Your task to perform on an android device: delete location history Image 0: 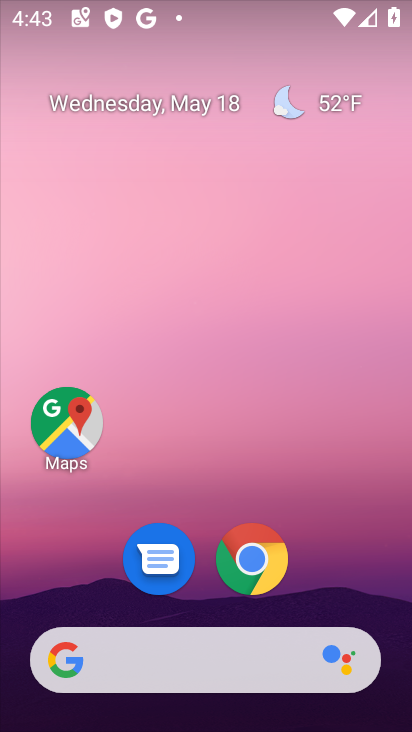
Step 0: click (58, 406)
Your task to perform on an android device: delete location history Image 1: 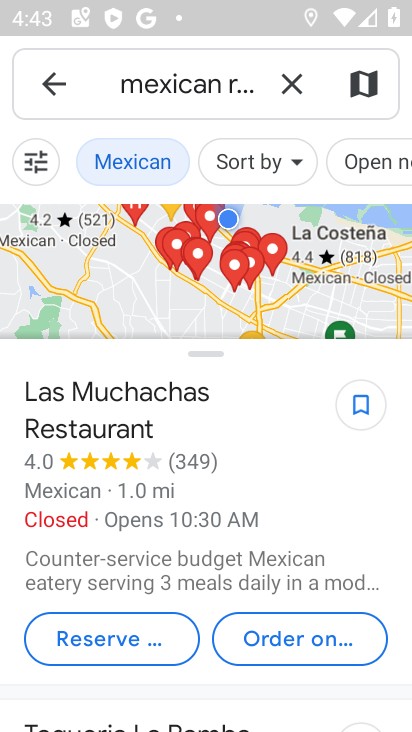
Step 1: click (39, 87)
Your task to perform on an android device: delete location history Image 2: 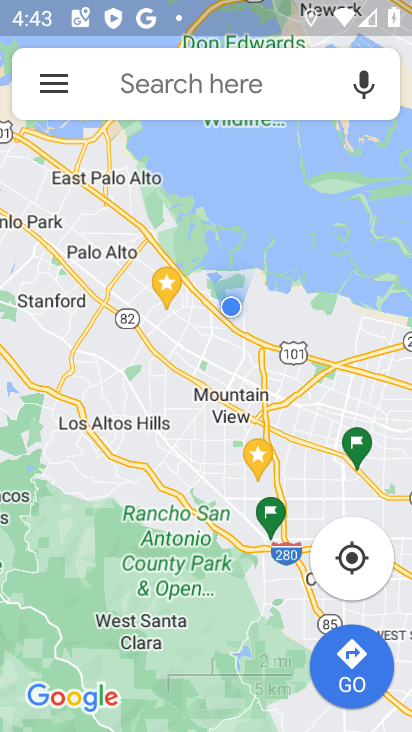
Step 2: click (62, 77)
Your task to perform on an android device: delete location history Image 3: 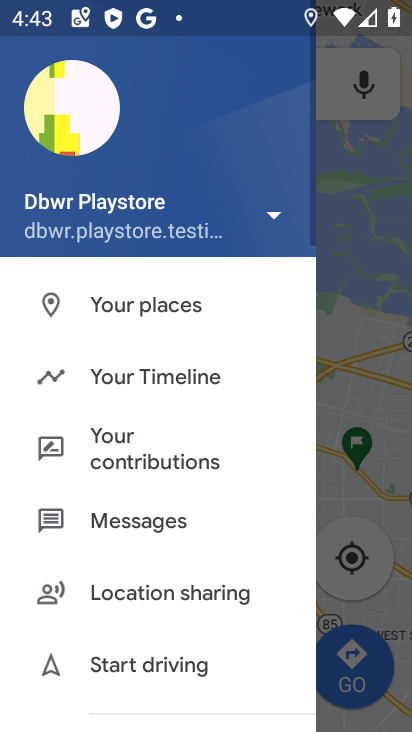
Step 3: click (136, 376)
Your task to perform on an android device: delete location history Image 4: 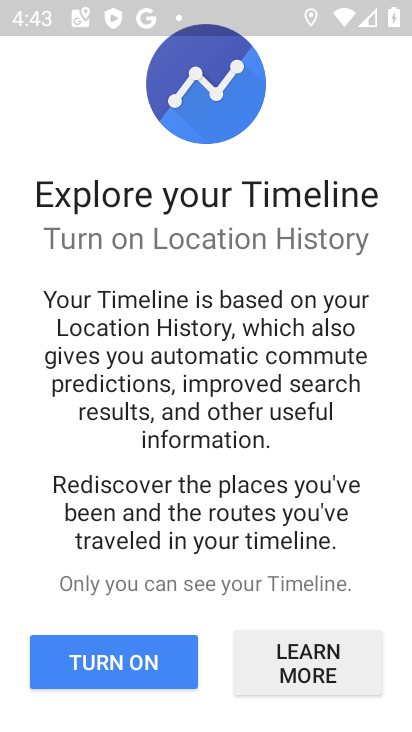
Step 4: click (127, 658)
Your task to perform on an android device: delete location history Image 5: 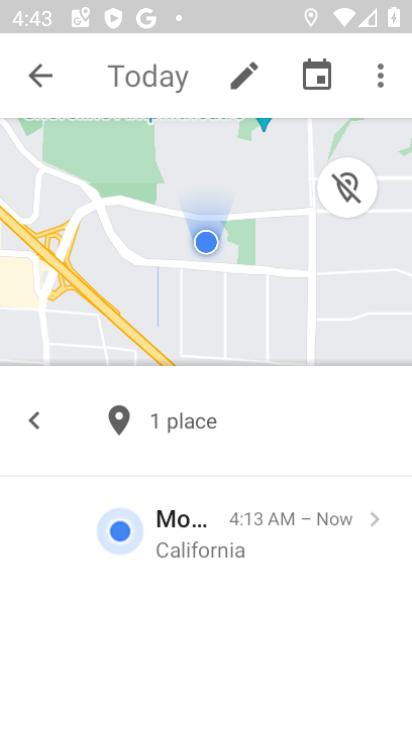
Step 5: click (380, 77)
Your task to perform on an android device: delete location history Image 6: 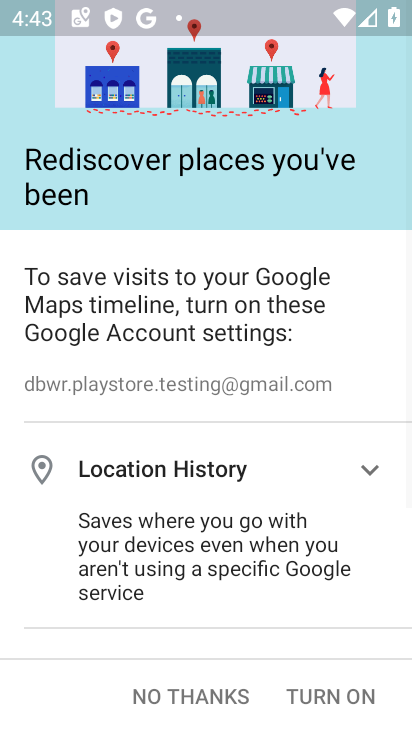
Step 6: click (190, 682)
Your task to perform on an android device: delete location history Image 7: 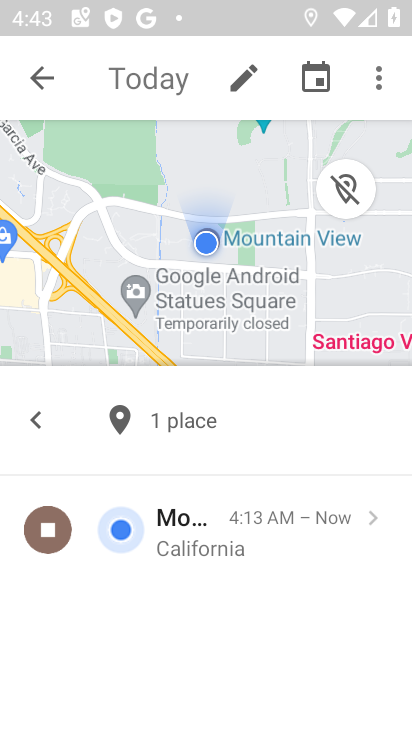
Step 7: click (378, 77)
Your task to perform on an android device: delete location history Image 8: 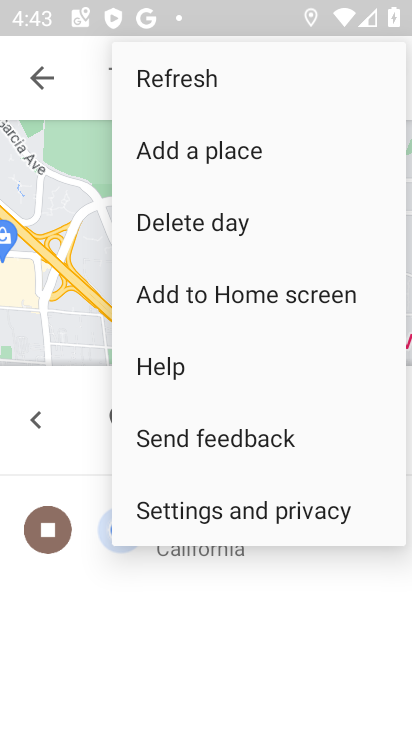
Step 8: click (145, 522)
Your task to perform on an android device: delete location history Image 9: 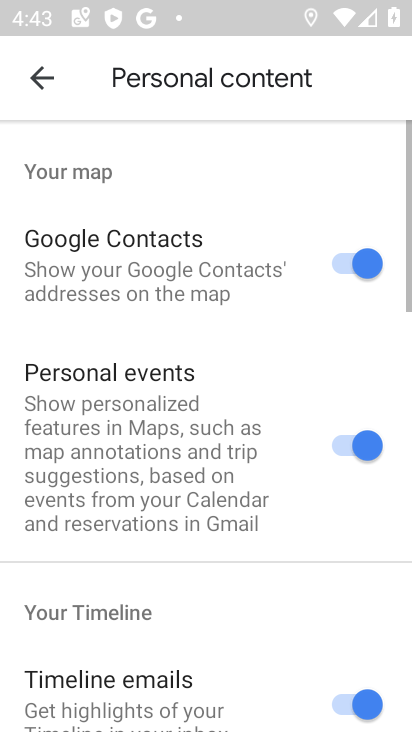
Step 9: drag from (153, 554) to (252, 42)
Your task to perform on an android device: delete location history Image 10: 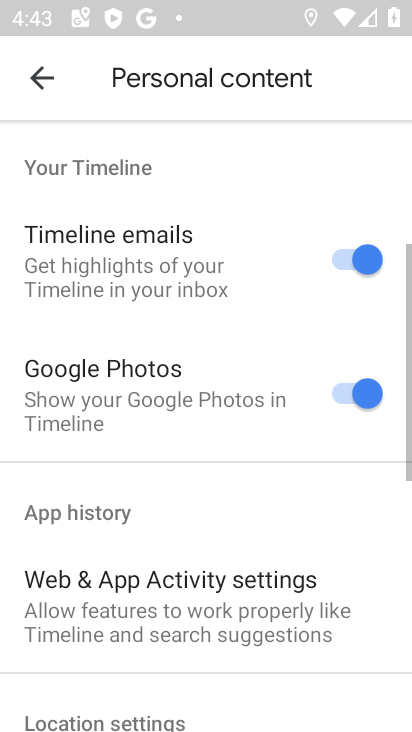
Step 10: drag from (161, 639) to (231, 161)
Your task to perform on an android device: delete location history Image 11: 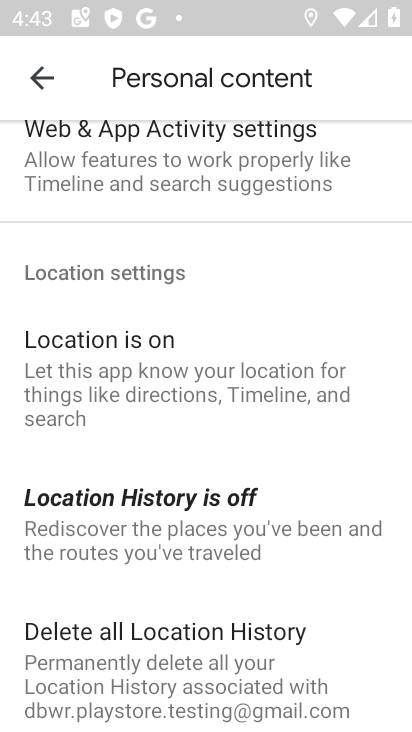
Step 11: click (192, 650)
Your task to perform on an android device: delete location history Image 12: 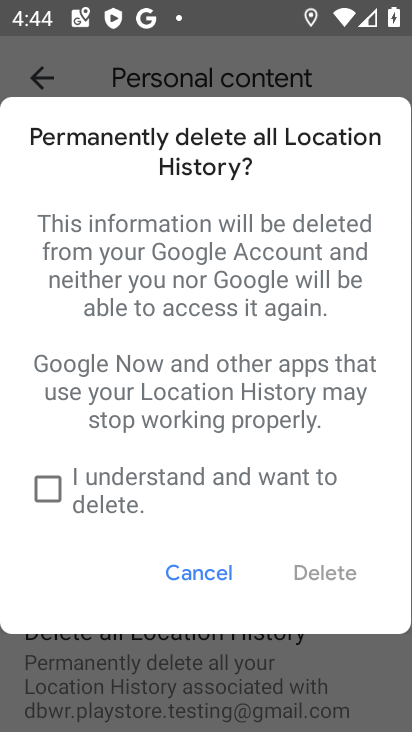
Step 12: click (47, 484)
Your task to perform on an android device: delete location history Image 13: 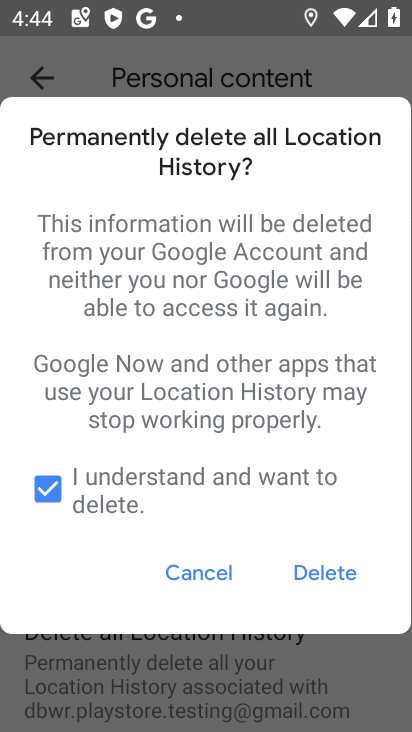
Step 13: click (317, 580)
Your task to perform on an android device: delete location history Image 14: 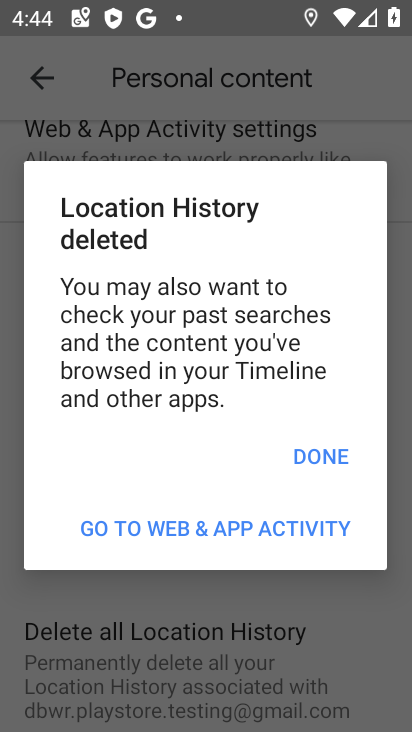
Step 14: click (336, 462)
Your task to perform on an android device: delete location history Image 15: 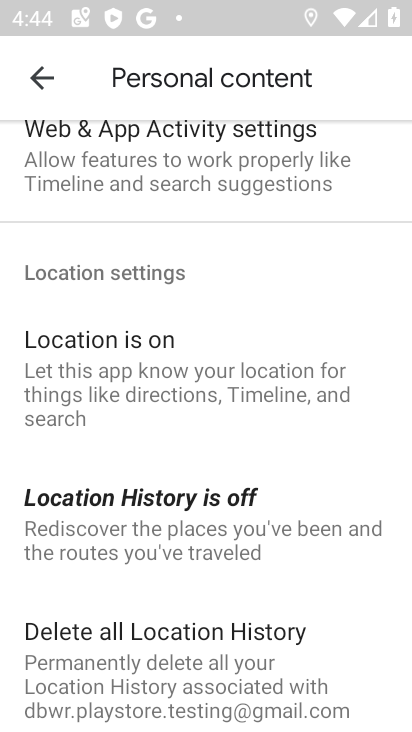
Step 15: task complete